Your task to perform on an android device: Open Chrome and go to the settings page Image 0: 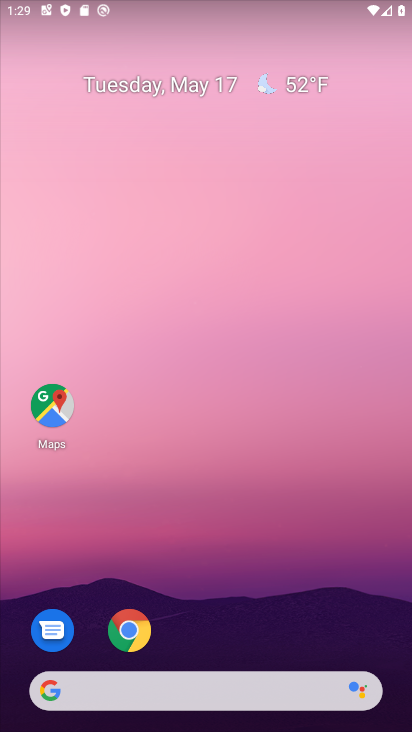
Step 0: click (130, 628)
Your task to perform on an android device: Open Chrome and go to the settings page Image 1: 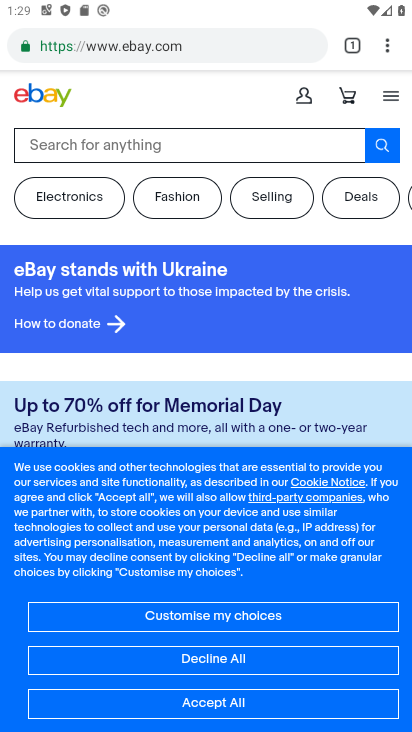
Step 1: task complete